Your task to perform on an android device: Go to location settings Image 0: 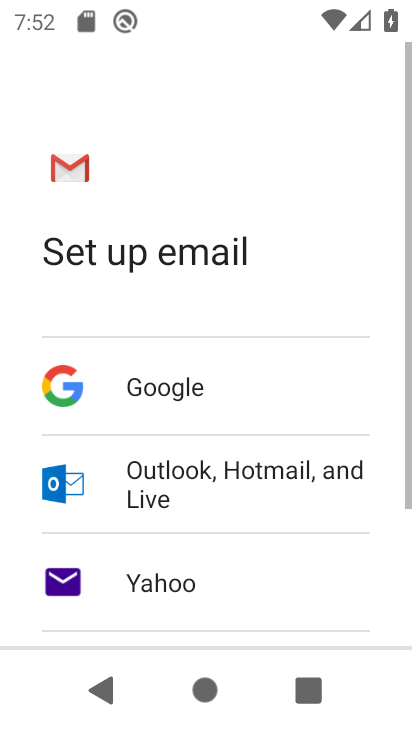
Step 0: press home button
Your task to perform on an android device: Go to location settings Image 1: 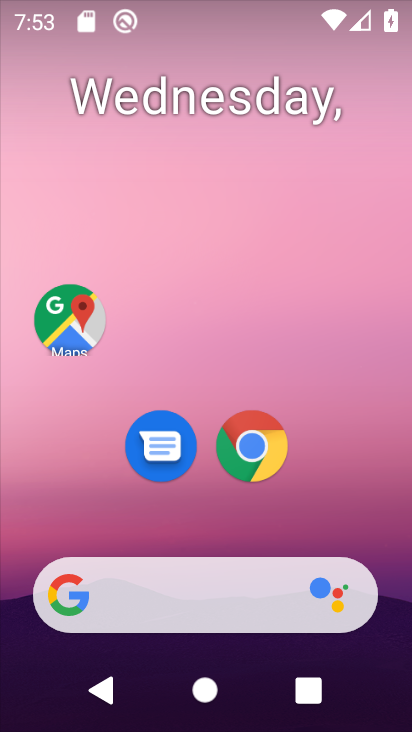
Step 1: drag from (213, 518) to (217, 137)
Your task to perform on an android device: Go to location settings Image 2: 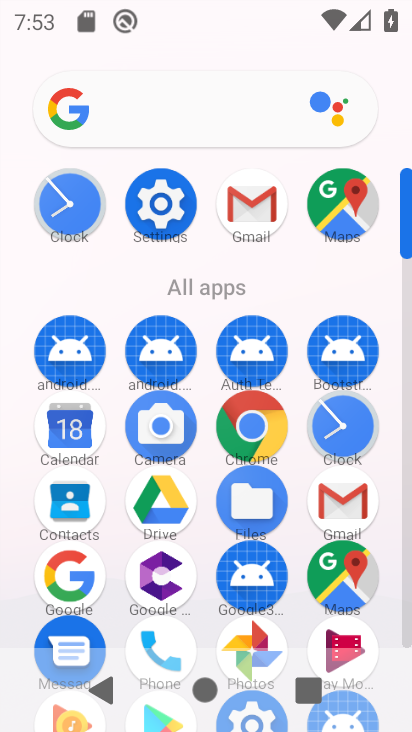
Step 2: click (157, 201)
Your task to perform on an android device: Go to location settings Image 3: 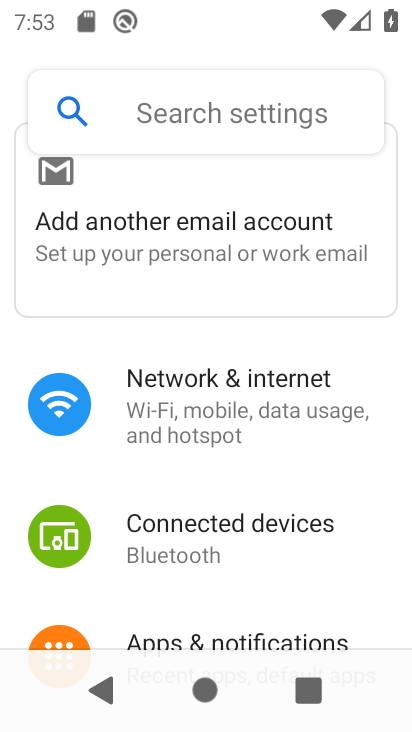
Step 3: drag from (232, 606) to (237, 215)
Your task to perform on an android device: Go to location settings Image 4: 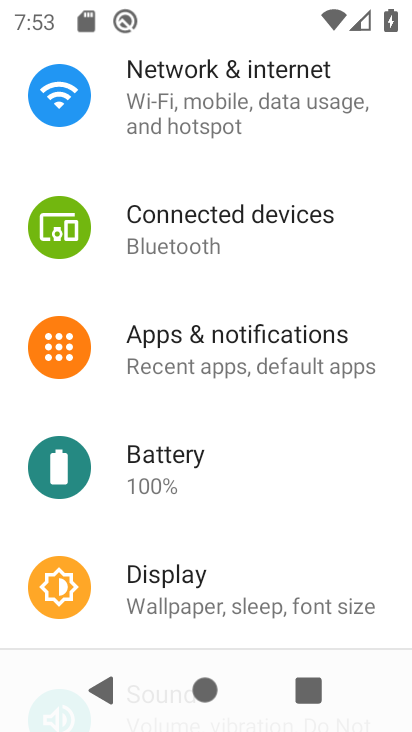
Step 4: drag from (225, 596) to (247, 259)
Your task to perform on an android device: Go to location settings Image 5: 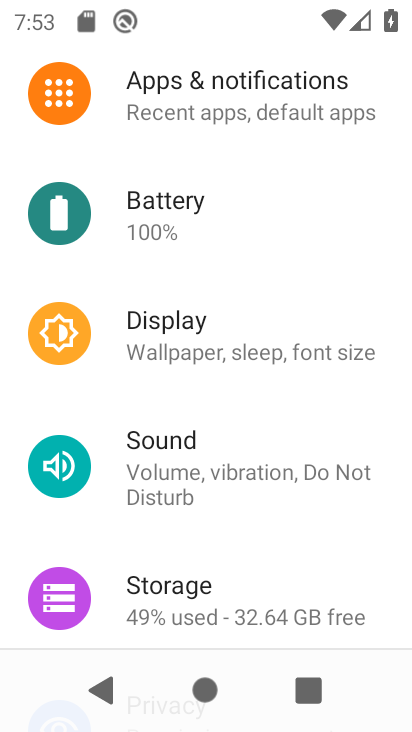
Step 5: drag from (235, 576) to (250, 172)
Your task to perform on an android device: Go to location settings Image 6: 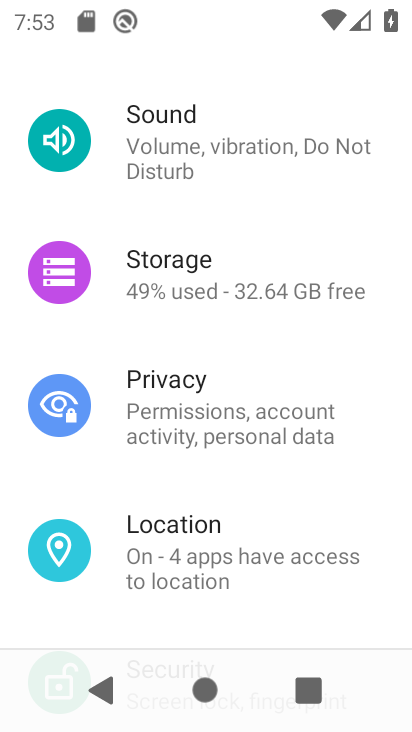
Step 6: click (242, 521)
Your task to perform on an android device: Go to location settings Image 7: 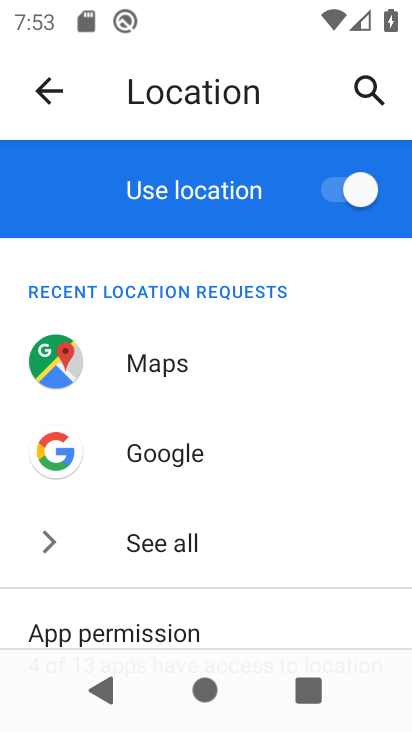
Step 7: drag from (219, 607) to (231, 113)
Your task to perform on an android device: Go to location settings Image 8: 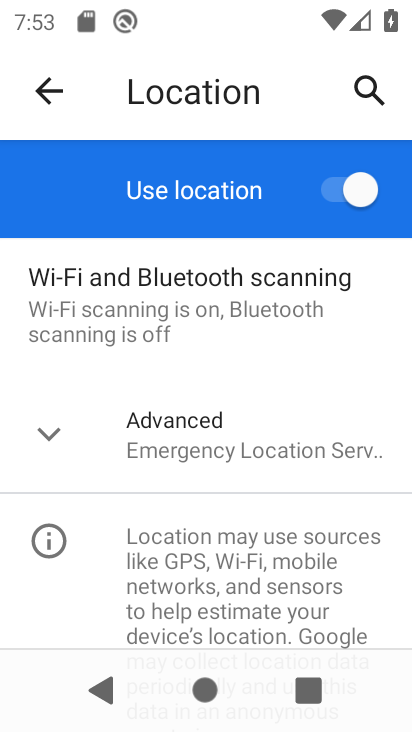
Step 8: click (41, 428)
Your task to perform on an android device: Go to location settings Image 9: 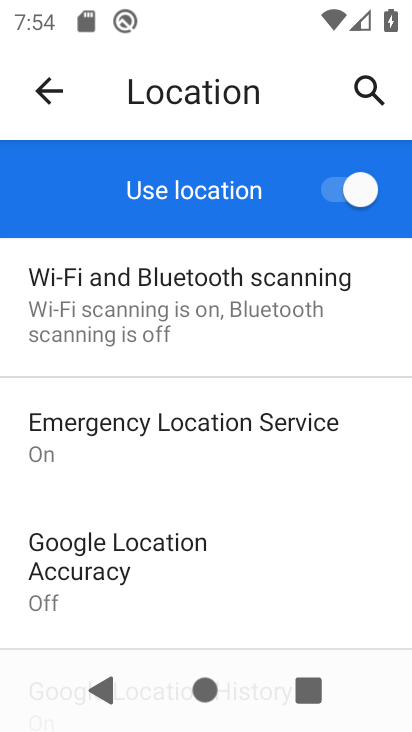
Step 9: task complete